Your task to perform on an android device: Do I have any events tomorrow? Image 0: 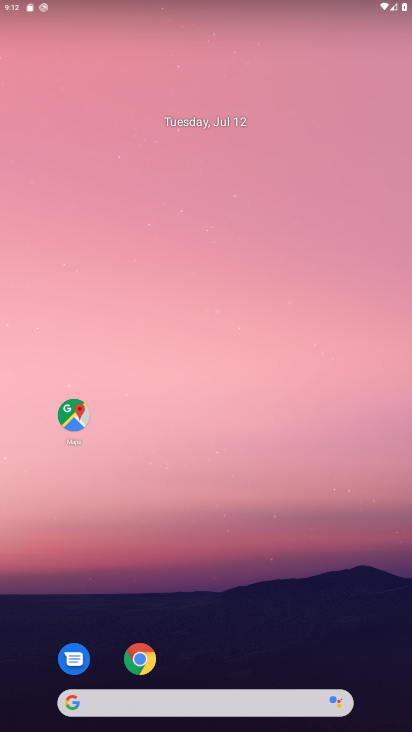
Step 0: drag from (302, 610) to (311, 256)
Your task to perform on an android device: Do I have any events tomorrow? Image 1: 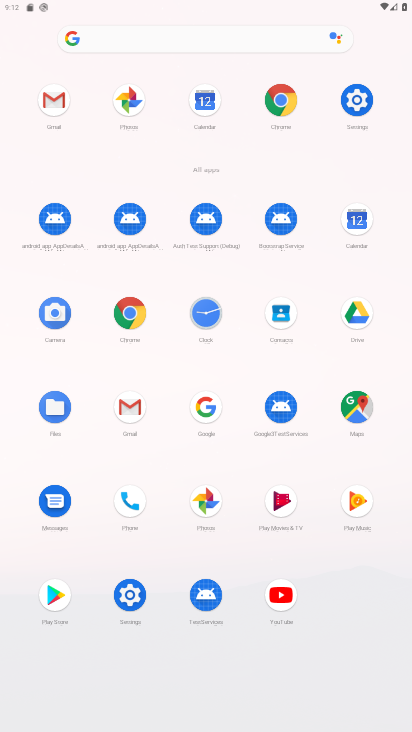
Step 1: click (357, 219)
Your task to perform on an android device: Do I have any events tomorrow? Image 2: 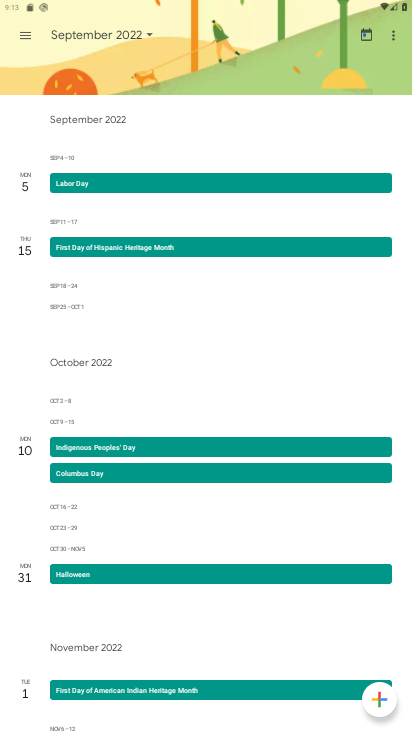
Step 2: drag from (170, 43) to (162, 460)
Your task to perform on an android device: Do I have any events tomorrow? Image 3: 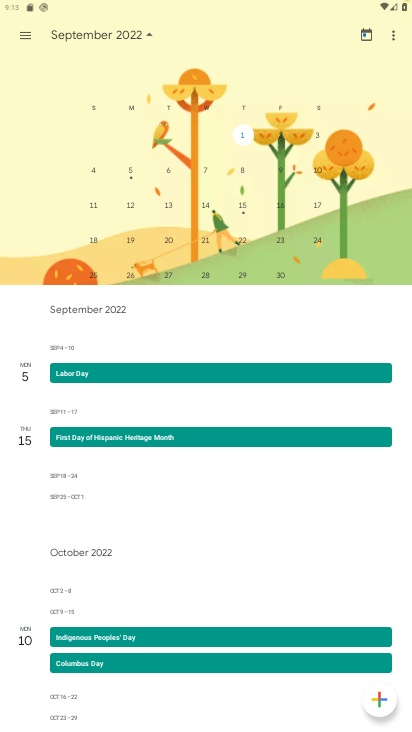
Step 3: drag from (18, 213) to (371, 207)
Your task to perform on an android device: Do I have any events tomorrow? Image 4: 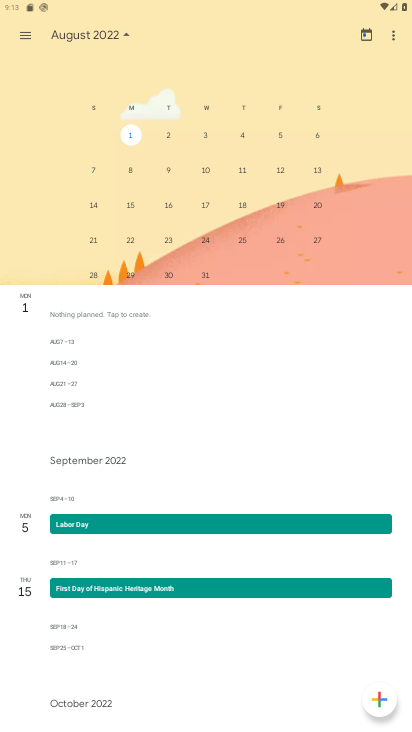
Step 4: drag from (61, 184) to (368, 190)
Your task to perform on an android device: Do I have any events tomorrow? Image 5: 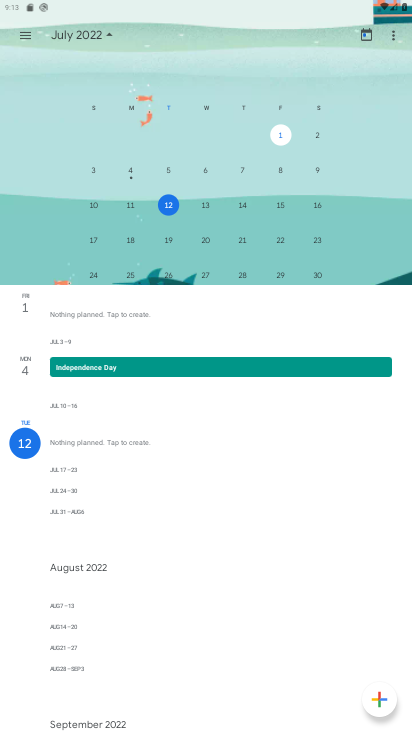
Step 5: click (203, 209)
Your task to perform on an android device: Do I have any events tomorrow? Image 6: 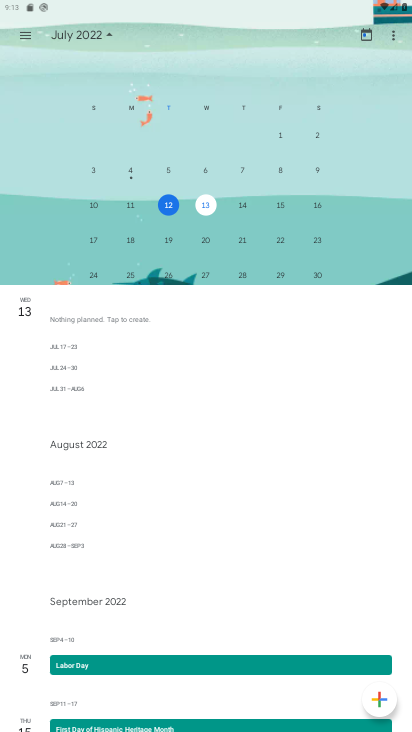
Step 6: task complete